Your task to perform on an android device: Show me popular games on the Play Store Image 0: 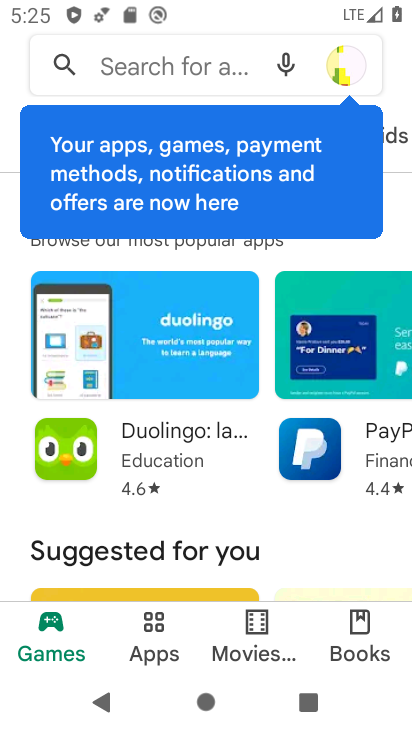
Step 0: click (67, 641)
Your task to perform on an android device: Show me popular games on the Play Store Image 1: 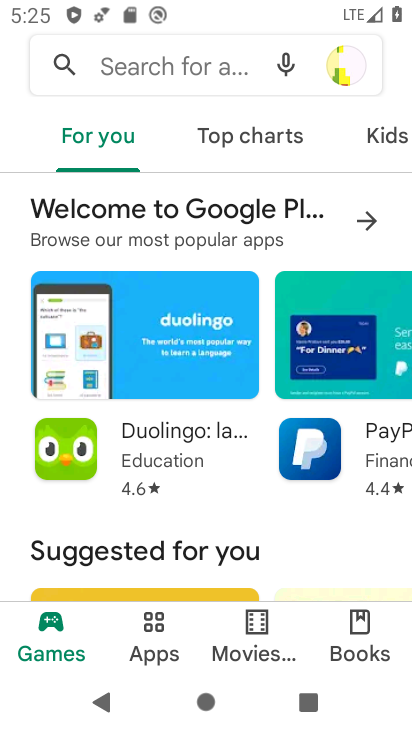
Step 1: click (245, 125)
Your task to perform on an android device: Show me popular games on the Play Store Image 2: 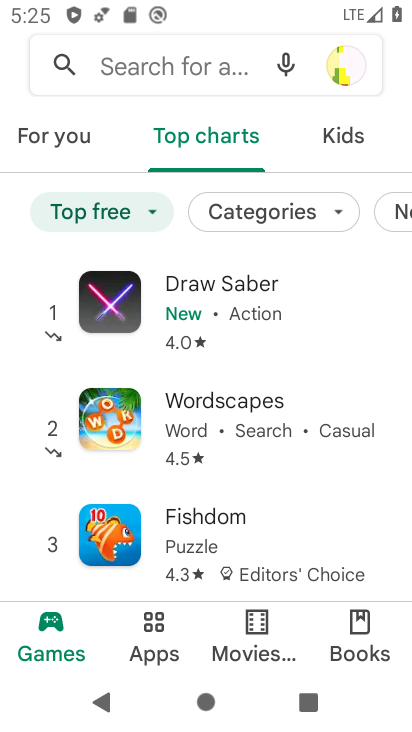
Step 2: task complete